Your task to perform on an android device: Clear the shopping cart on newegg.com. Search for macbook on newegg.com, select the first entry, and add it to the cart. Image 0: 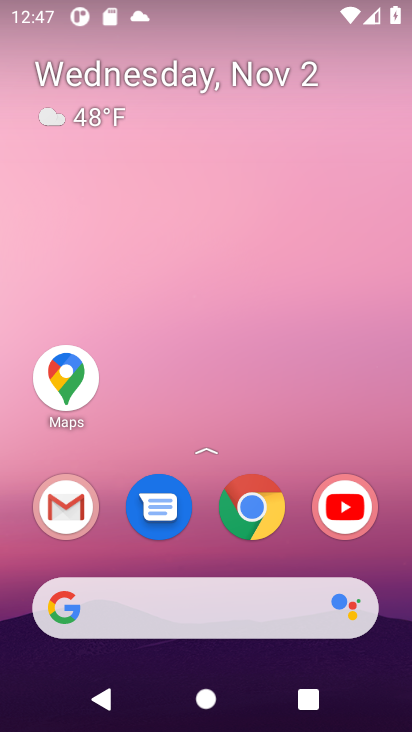
Step 0: click (162, 597)
Your task to perform on an android device: Clear the shopping cart on newegg.com. Search for macbook on newegg.com, select the first entry, and add it to the cart. Image 1: 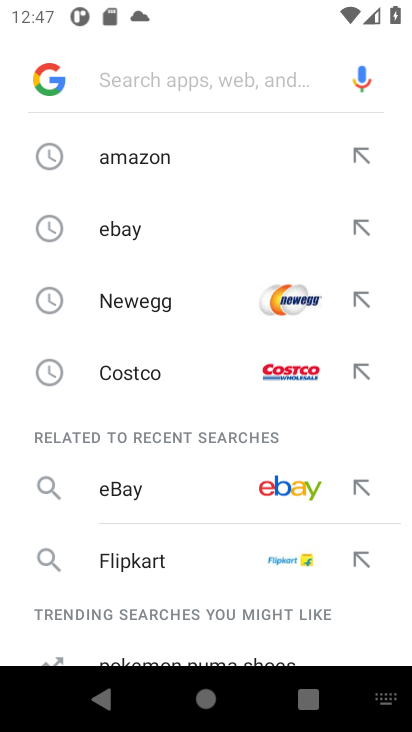
Step 1: type "newegg.com"
Your task to perform on an android device: Clear the shopping cart on newegg.com. Search for macbook on newegg.com, select the first entry, and add it to the cart. Image 2: 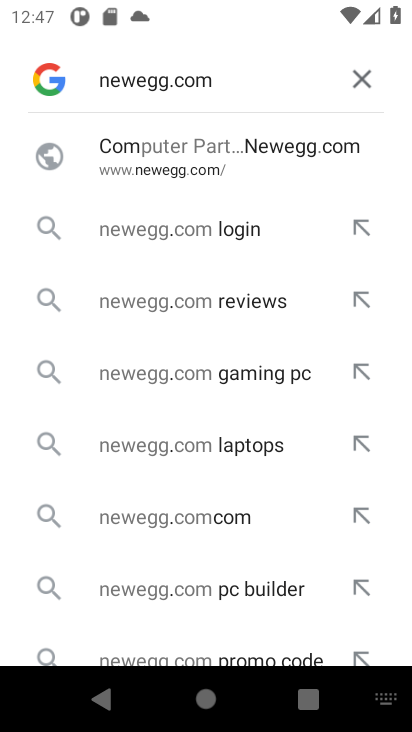
Step 2: type ""
Your task to perform on an android device: Clear the shopping cart on newegg.com. Search for macbook on newegg.com, select the first entry, and add it to the cart. Image 3: 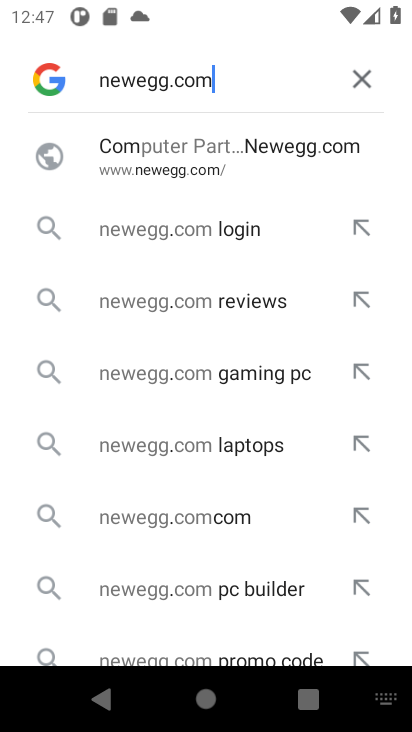
Step 3: click (246, 152)
Your task to perform on an android device: Clear the shopping cart on newegg.com. Search for macbook on newegg.com, select the first entry, and add it to the cart. Image 4: 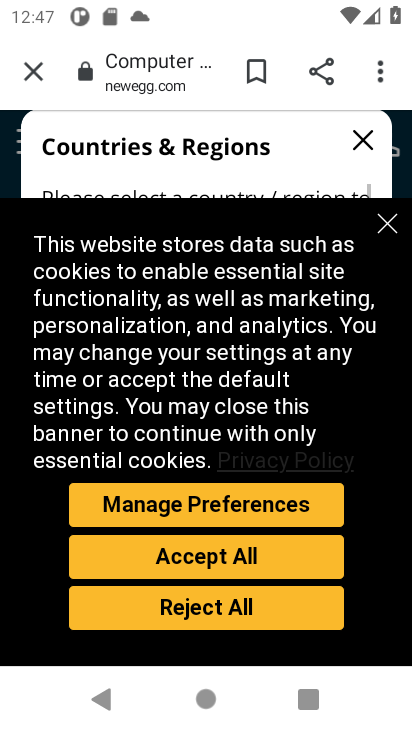
Step 4: click (377, 225)
Your task to perform on an android device: Clear the shopping cart on newegg.com. Search for macbook on newegg.com, select the first entry, and add it to the cart. Image 5: 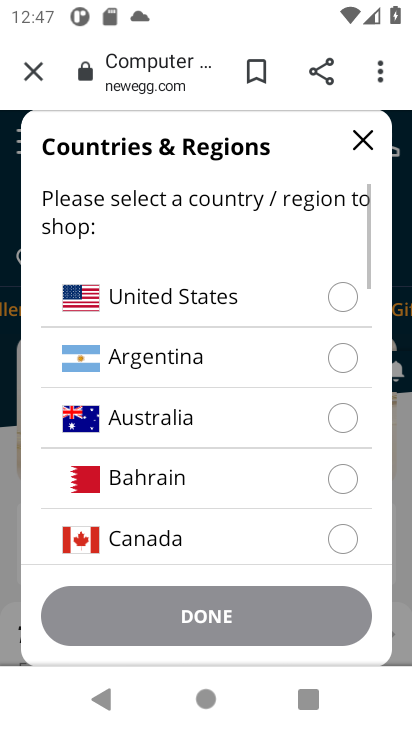
Step 5: click (362, 137)
Your task to perform on an android device: Clear the shopping cart on newegg.com. Search for macbook on newegg.com, select the first entry, and add it to the cart. Image 6: 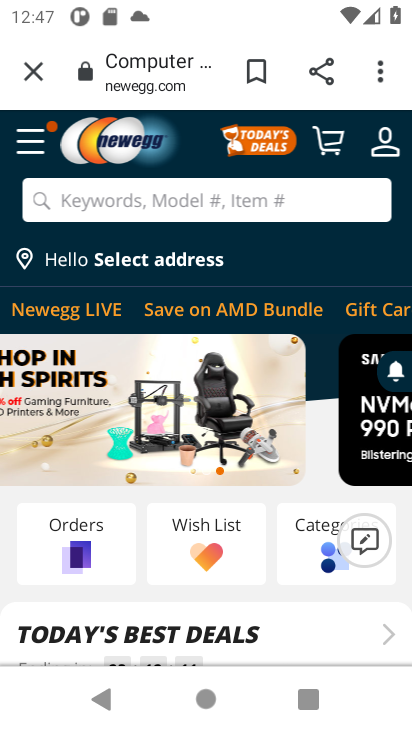
Step 6: click (141, 204)
Your task to perform on an android device: Clear the shopping cart on newegg.com. Search for macbook on newegg.com, select the first entry, and add it to the cart. Image 7: 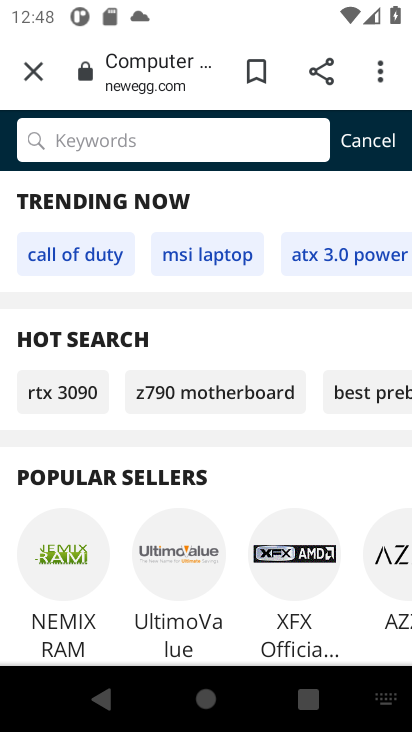
Step 7: click (136, 147)
Your task to perform on an android device: Clear the shopping cart on newegg.com. Search for macbook on newegg.com, select the first entry, and add it to the cart. Image 8: 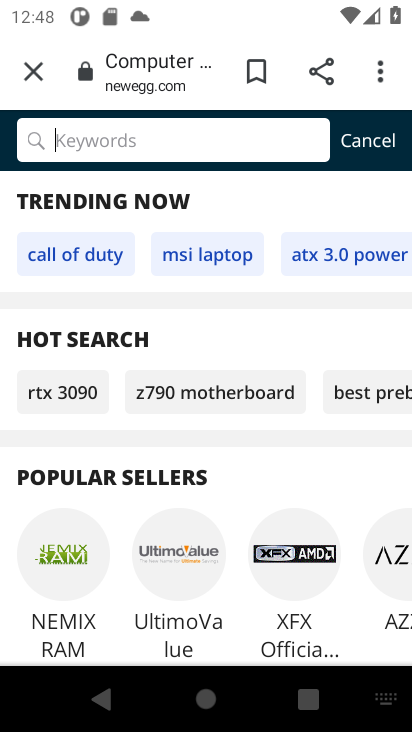
Step 8: type "macbook "
Your task to perform on an android device: Clear the shopping cart on newegg.com. Search for macbook on newegg.com, select the first entry, and add it to the cart. Image 9: 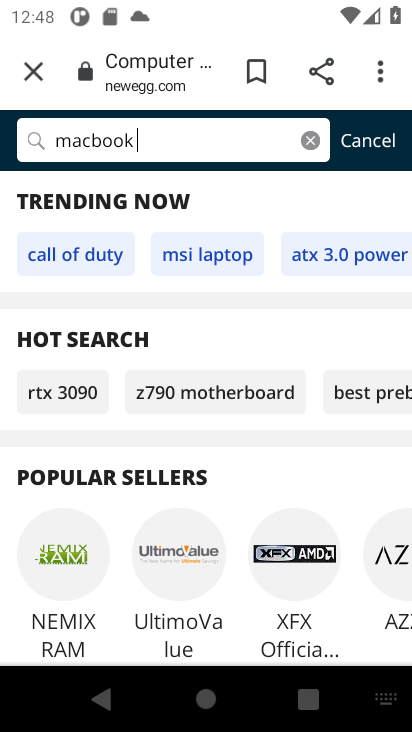
Step 9: type ""
Your task to perform on an android device: Clear the shopping cart on newegg.com. Search for macbook on newegg.com, select the first entry, and add it to the cart. Image 10: 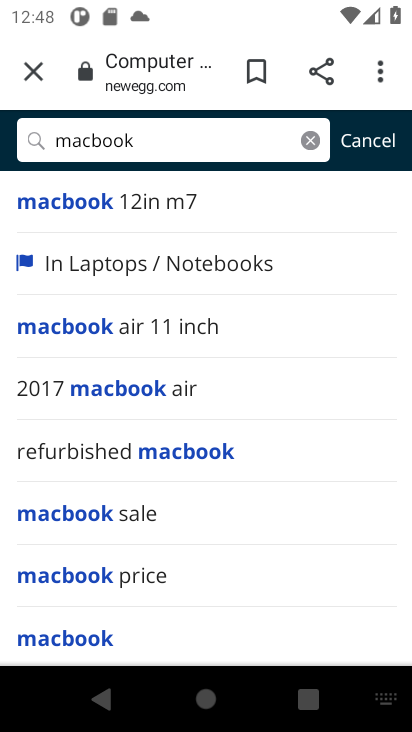
Step 10: click (97, 635)
Your task to perform on an android device: Clear the shopping cart on newegg.com. Search for macbook on newegg.com, select the first entry, and add it to the cart. Image 11: 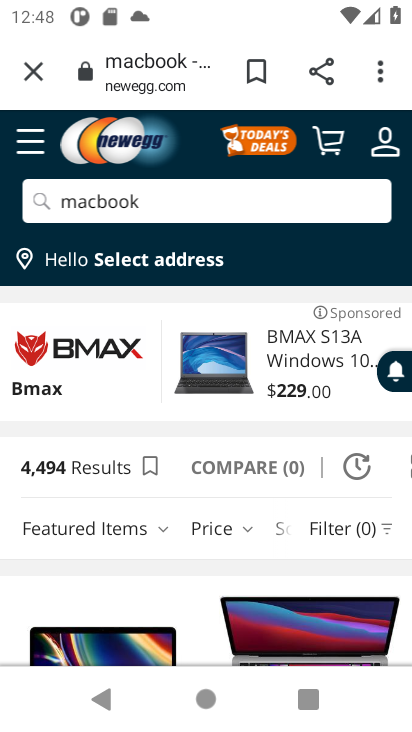
Step 11: drag from (231, 556) to (259, 264)
Your task to perform on an android device: Clear the shopping cart on newegg.com. Search for macbook on newegg.com, select the first entry, and add it to the cart. Image 12: 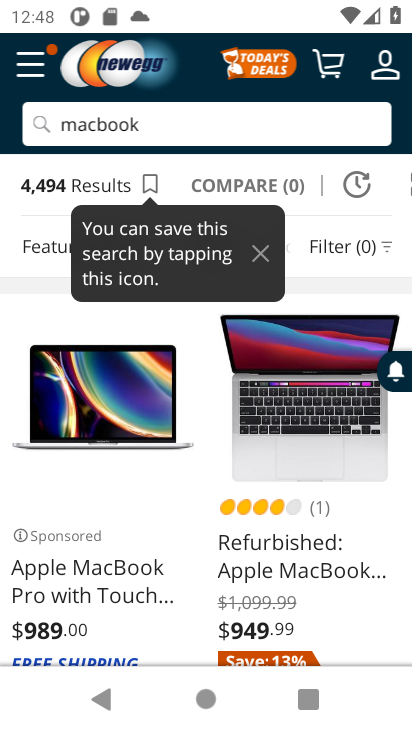
Step 12: click (107, 409)
Your task to perform on an android device: Clear the shopping cart on newegg.com. Search for macbook on newegg.com, select the first entry, and add it to the cart. Image 13: 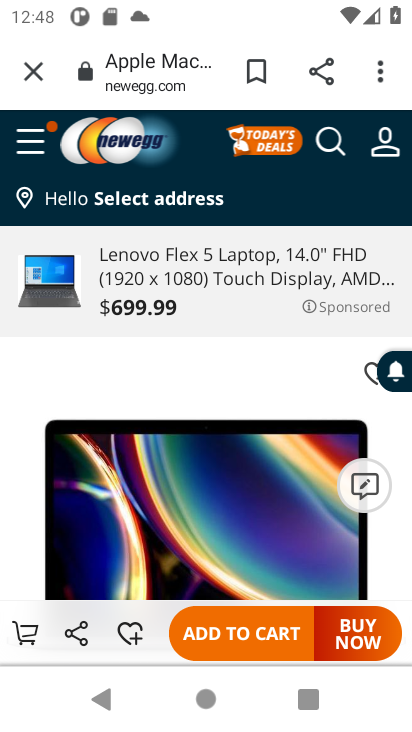
Step 13: drag from (291, 397) to (328, 222)
Your task to perform on an android device: Clear the shopping cart on newegg.com. Search for macbook on newegg.com, select the first entry, and add it to the cart. Image 14: 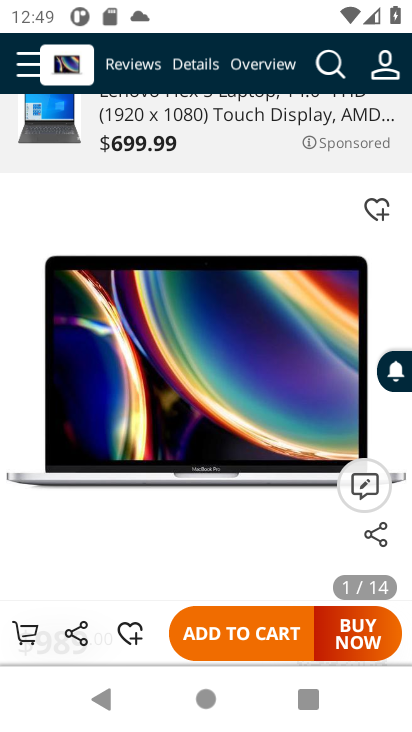
Step 14: click (246, 625)
Your task to perform on an android device: Clear the shopping cart on newegg.com. Search for macbook on newegg.com, select the first entry, and add it to the cart. Image 15: 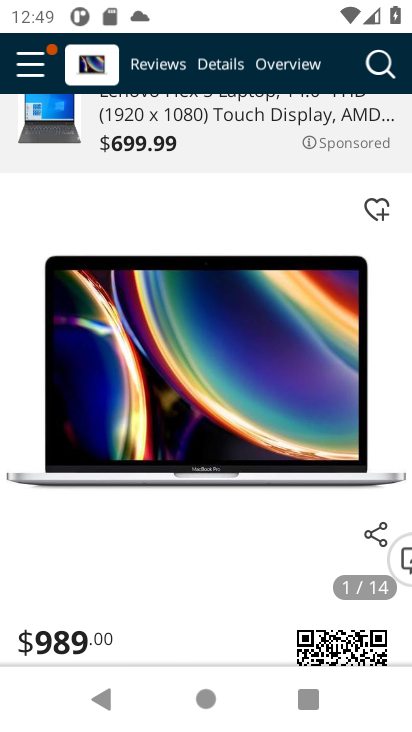
Step 15: task complete